Your task to perform on an android device: change notification settings in the gmail app Image 0: 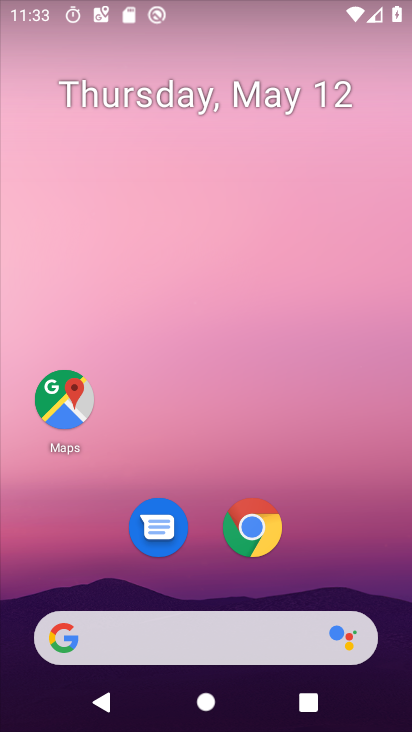
Step 0: drag from (310, 577) to (297, 161)
Your task to perform on an android device: change notification settings in the gmail app Image 1: 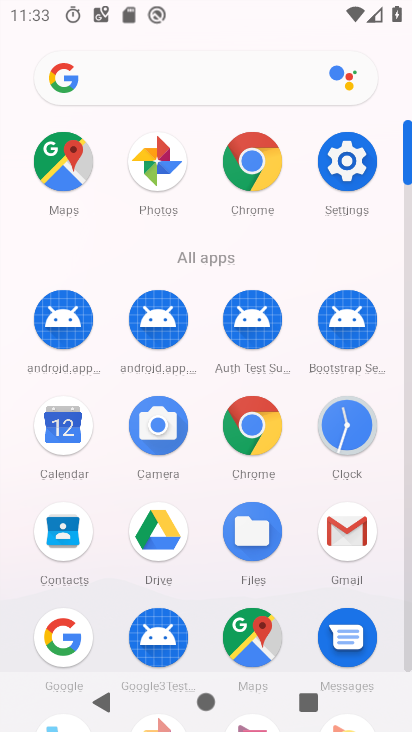
Step 1: click (345, 551)
Your task to perform on an android device: change notification settings in the gmail app Image 2: 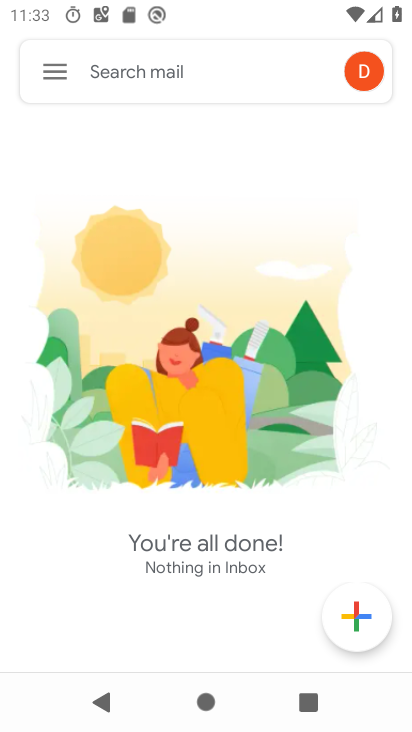
Step 2: click (63, 83)
Your task to perform on an android device: change notification settings in the gmail app Image 3: 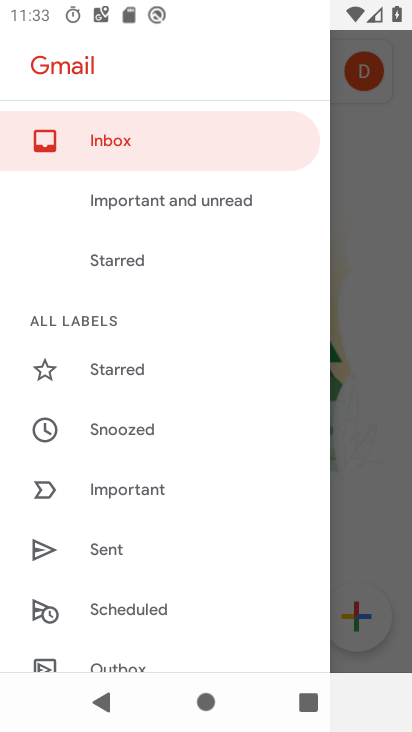
Step 3: drag from (183, 609) to (192, 316)
Your task to perform on an android device: change notification settings in the gmail app Image 4: 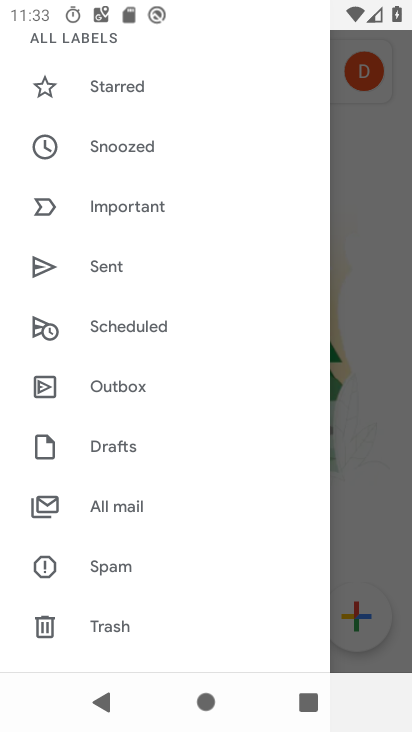
Step 4: drag from (137, 591) to (164, 284)
Your task to perform on an android device: change notification settings in the gmail app Image 5: 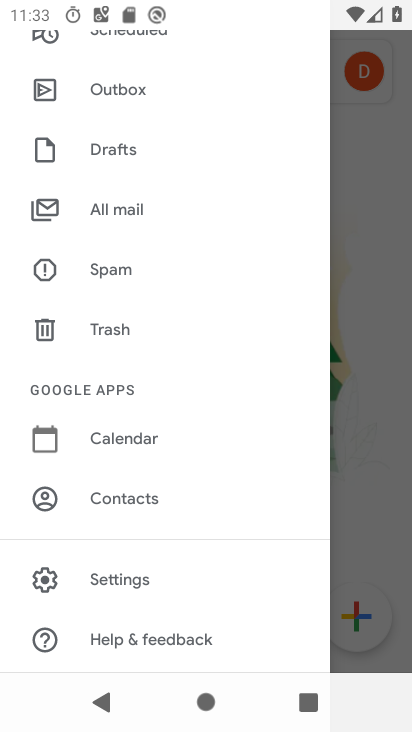
Step 5: click (123, 591)
Your task to perform on an android device: change notification settings in the gmail app Image 6: 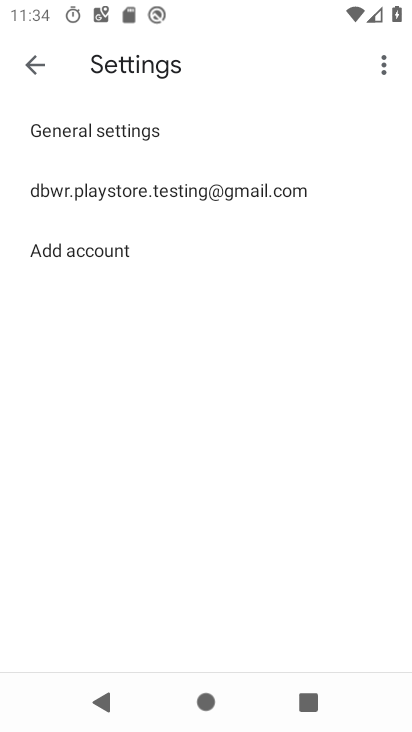
Step 6: click (128, 203)
Your task to perform on an android device: change notification settings in the gmail app Image 7: 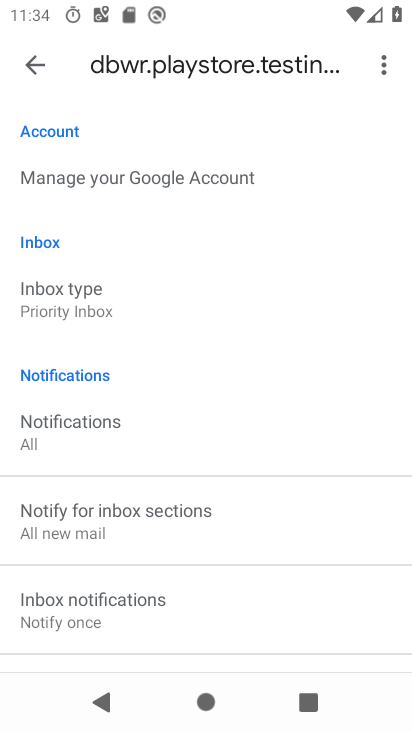
Step 7: drag from (238, 575) to (238, 285)
Your task to perform on an android device: change notification settings in the gmail app Image 8: 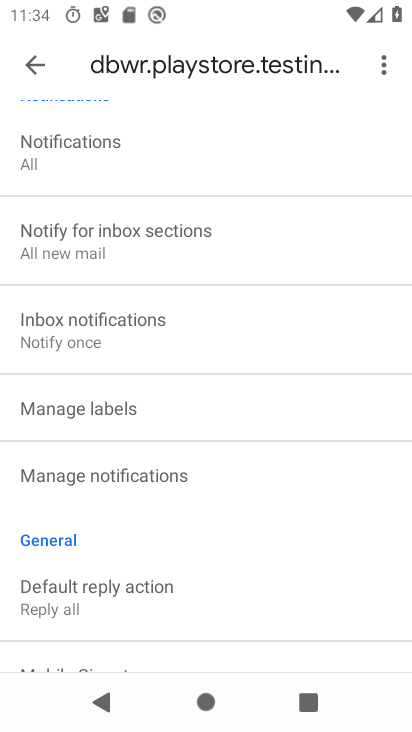
Step 8: drag from (223, 191) to (223, 352)
Your task to perform on an android device: change notification settings in the gmail app Image 9: 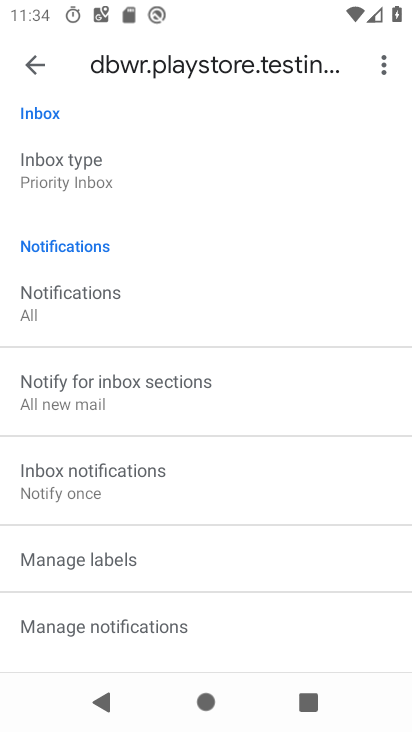
Step 9: drag from (225, 254) to (196, 580)
Your task to perform on an android device: change notification settings in the gmail app Image 10: 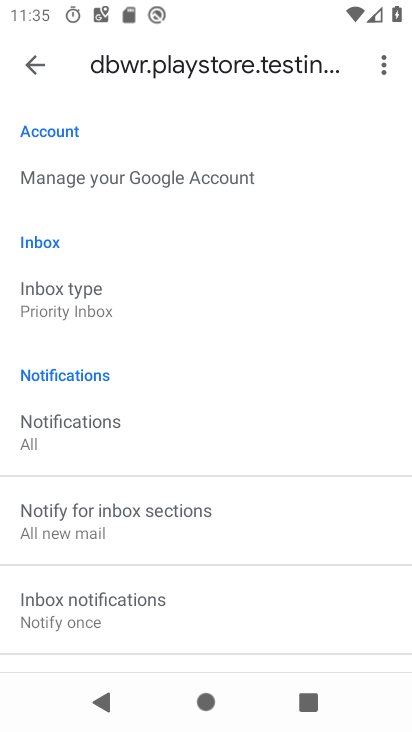
Step 10: drag from (195, 579) to (194, 324)
Your task to perform on an android device: change notification settings in the gmail app Image 11: 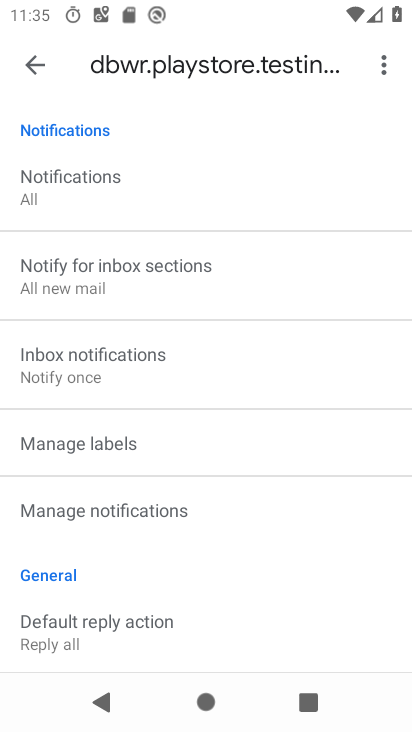
Step 11: drag from (183, 557) to (239, 344)
Your task to perform on an android device: change notification settings in the gmail app Image 12: 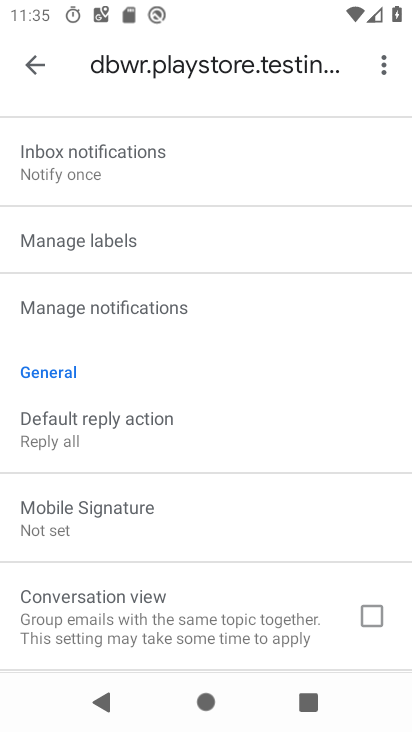
Step 12: drag from (138, 195) to (137, 699)
Your task to perform on an android device: change notification settings in the gmail app Image 13: 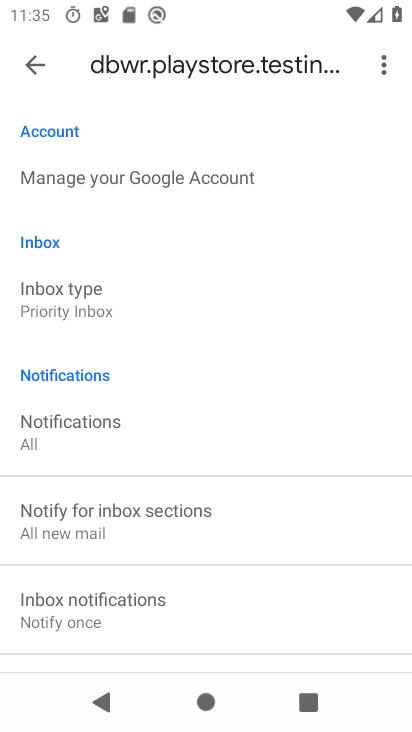
Step 13: click (68, 430)
Your task to perform on an android device: change notification settings in the gmail app Image 14: 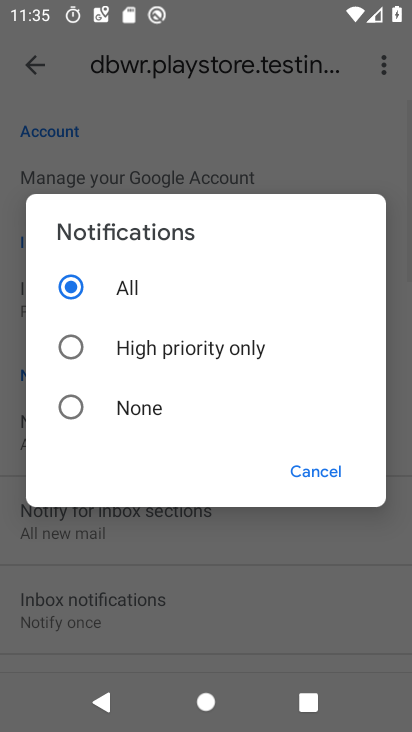
Step 14: click (72, 413)
Your task to perform on an android device: change notification settings in the gmail app Image 15: 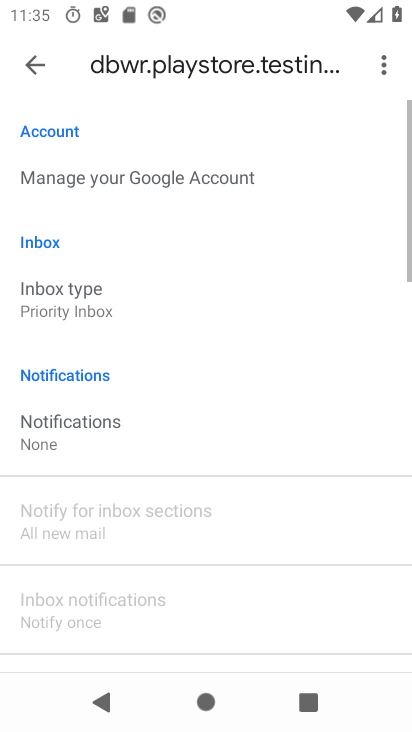
Step 15: task complete